Your task to perform on an android device: toggle priority inbox in the gmail app Image 0: 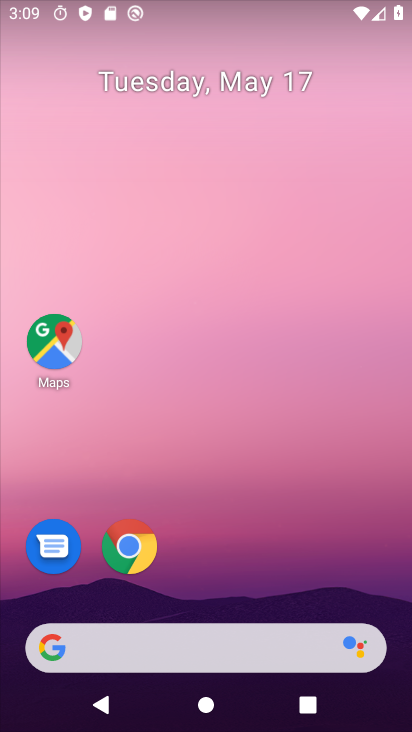
Step 0: drag from (236, 676) to (310, 207)
Your task to perform on an android device: toggle priority inbox in the gmail app Image 1: 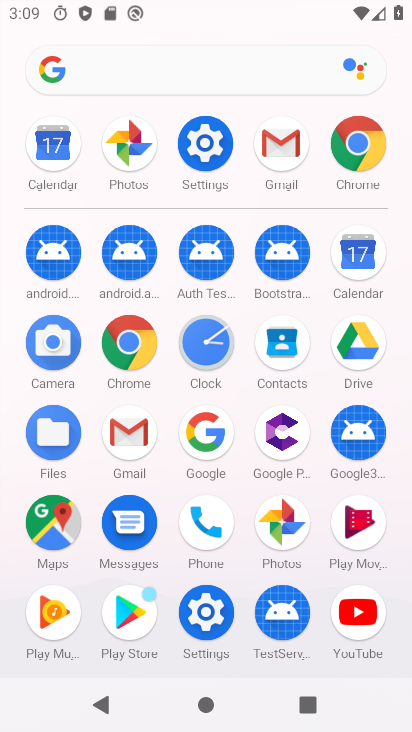
Step 1: click (128, 449)
Your task to perform on an android device: toggle priority inbox in the gmail app Image 2: 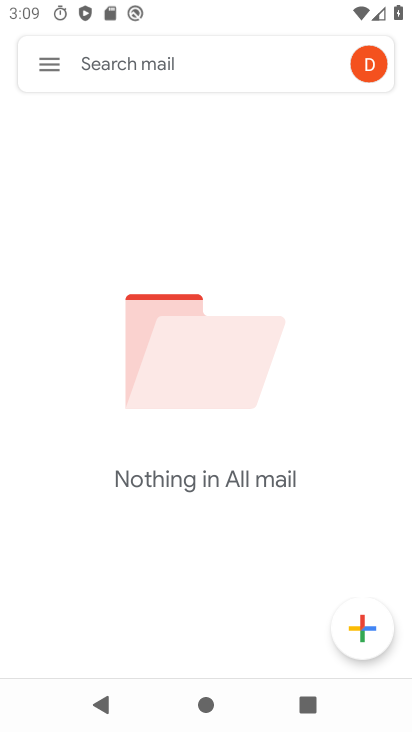
Step 2: click (55, 62)
Your task to perform on an android device: toggle priority inbox in the gmail app Image 3: 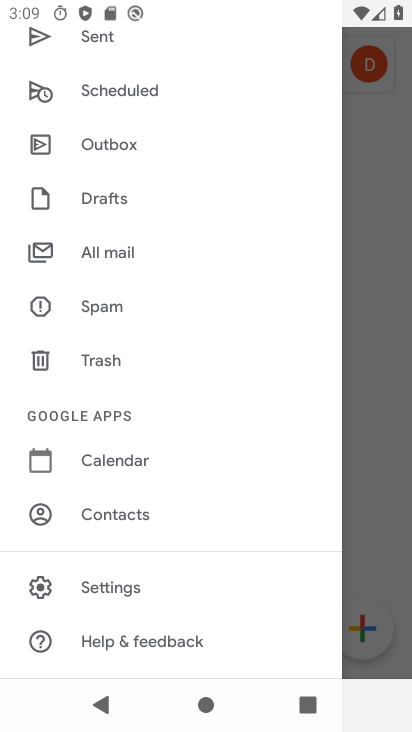
Step 3: click (95, 592)
Your task to perform on an android device: toggle priority inbox in the gmail app Image 4: 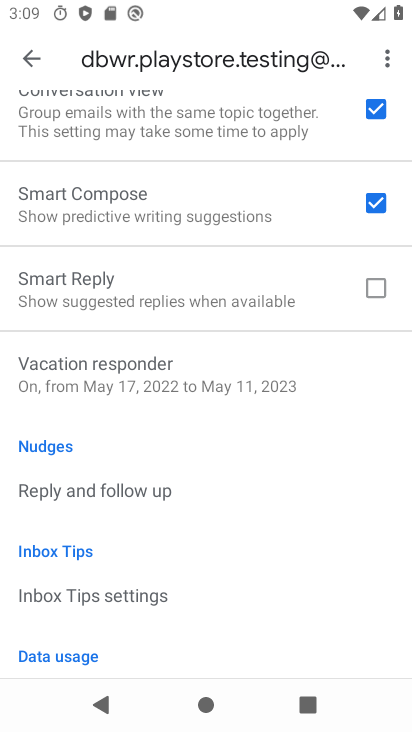
Step 4: drag from (158, 186) to (129, 622)
Your task to perform on an android device: toggle priority inbox in the gmail app Image 5: 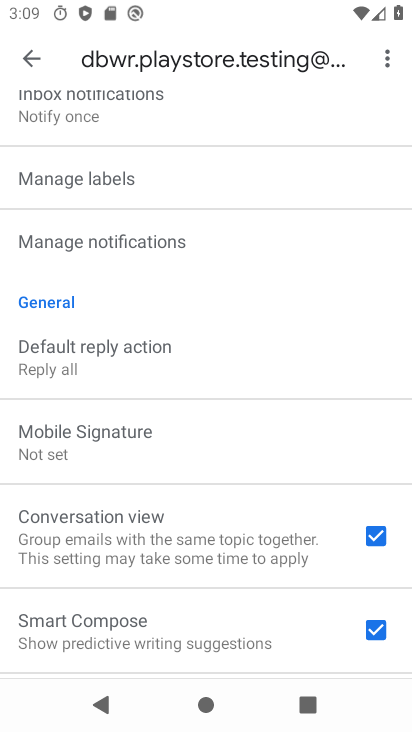
Step 5: drag from (152, 224) to (125, 471)
Your task to perform on an android device: toggle priority inbox in the gmail app Image 6: 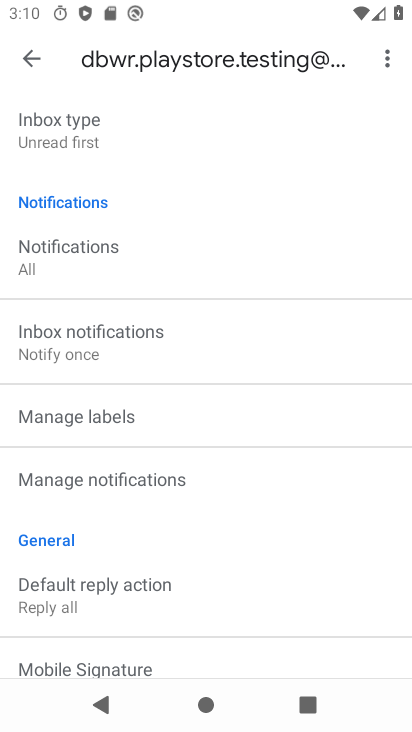
Step 6: click (116, 143)
Your task to perform on an android device: toggle priority inbox in the gmail app Image 7: 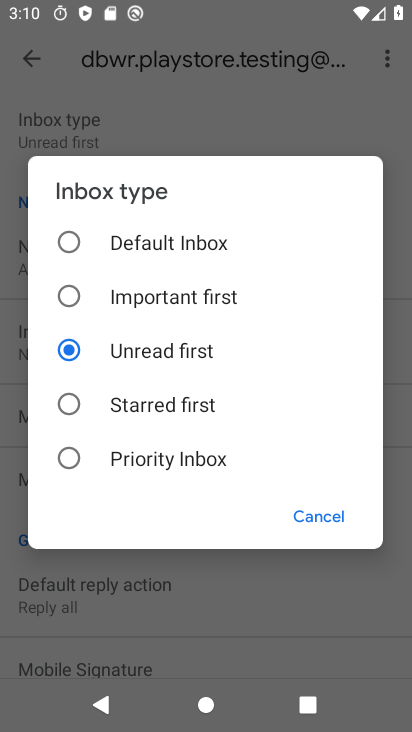
Step 7: click (157, 465)
Your task to perform on an android device: toggle priority inbox in the gmail app Image 8: 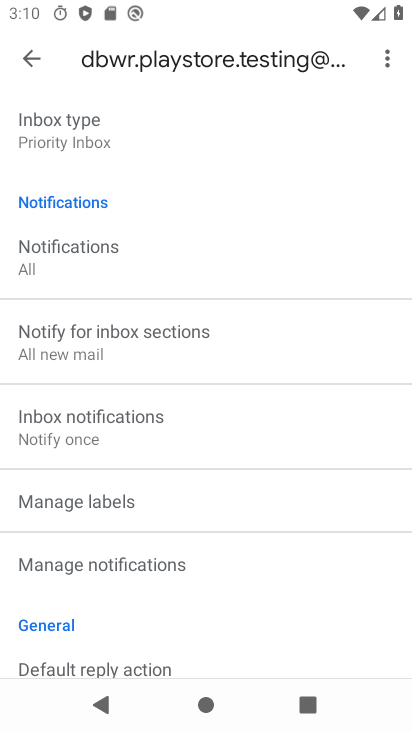
Step 8: task complete